Your task to perform on an android device: change your default location settings in chrome Image 0: 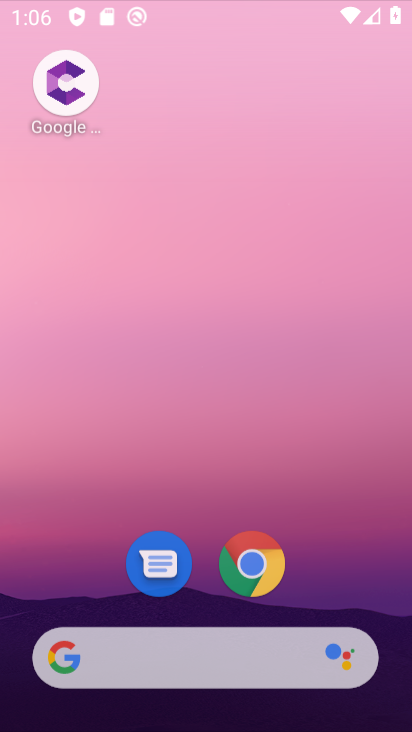
Step 0: click (299, 182)
Your task to perform on an android device: change your default location settings in chrome Image 1: 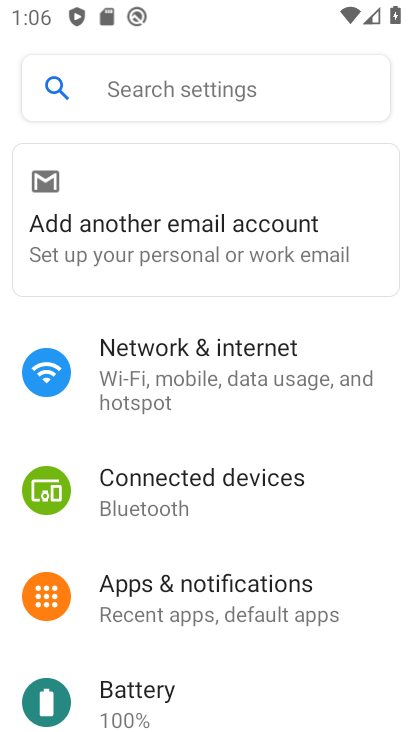
Step 1: press home button
Your task to perform on an android device: change your default location settings in chrome Image 2: 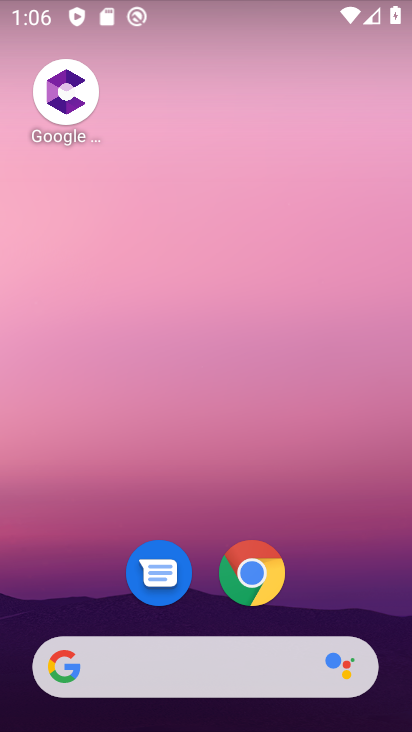
Step 2: click (262, 585)
Your task to perform on an android device: change your default location settings in chrome Image 3: 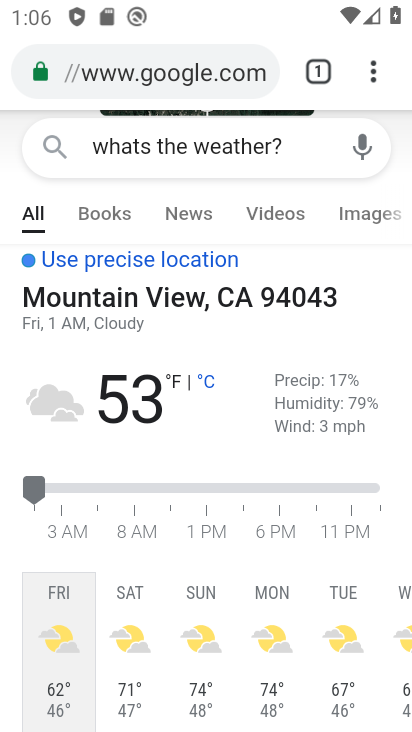
Step 3: drag from (376, 73) to (211, 572)
Your task to perform on an android device: change your default location settings in chrome Image 4: 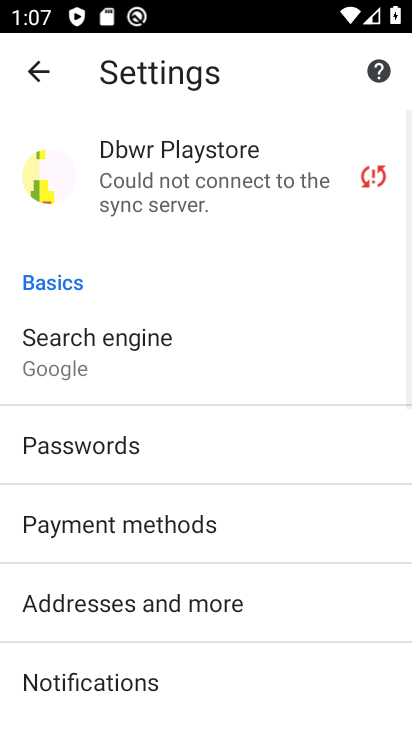
Step 4: drag from (195, 660) to (223, 266)
Your task to perform on an android device: change your default location settings in chrome Image 5: 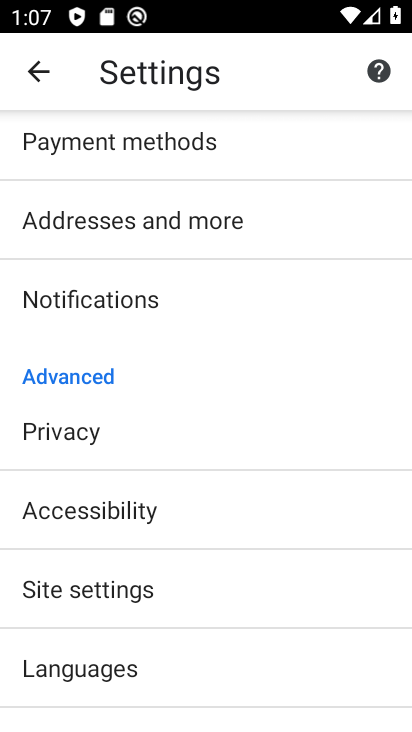
Step 5: click (123, 603)
Your task to perform on an android device: change your default location settings in chrome Image 6: 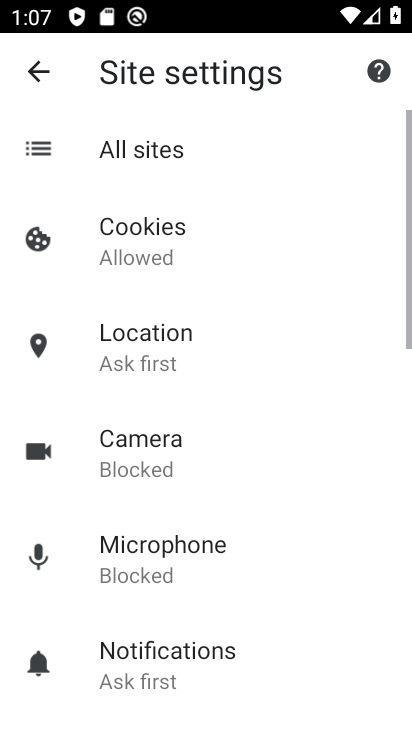
Step 6: drag from (227, 596) to (264, 529)
Your task to perform on an android device: change your default location settings in chrome Image 7: 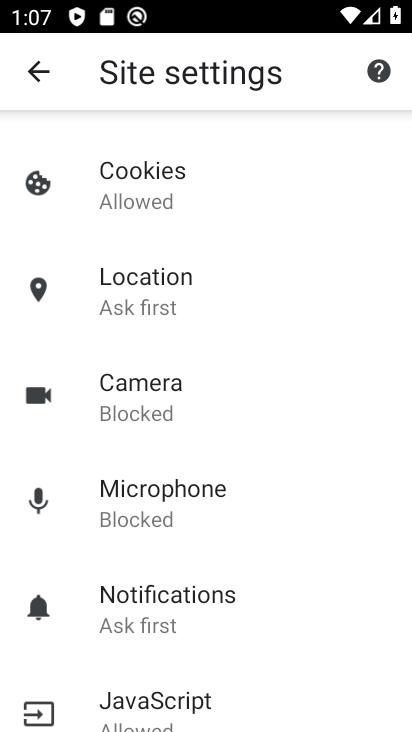
Step 7: click (200, 301)
Your task to perform on an android device: change your default location settings in chrome Image 8: 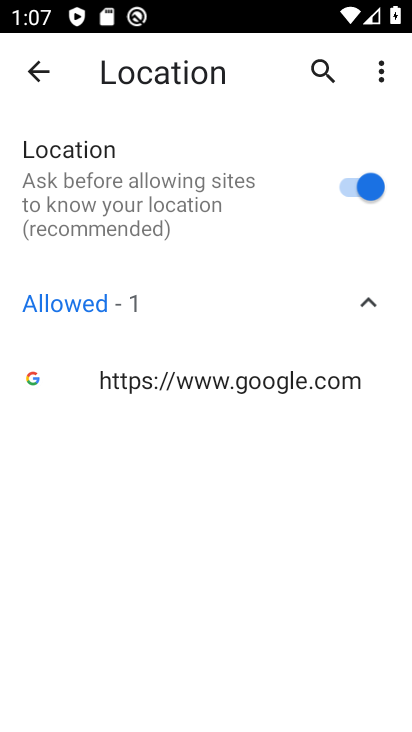
Step 8: task complete